Your task to perform on an android device: Is it going to rain tomorrow? Image 0: 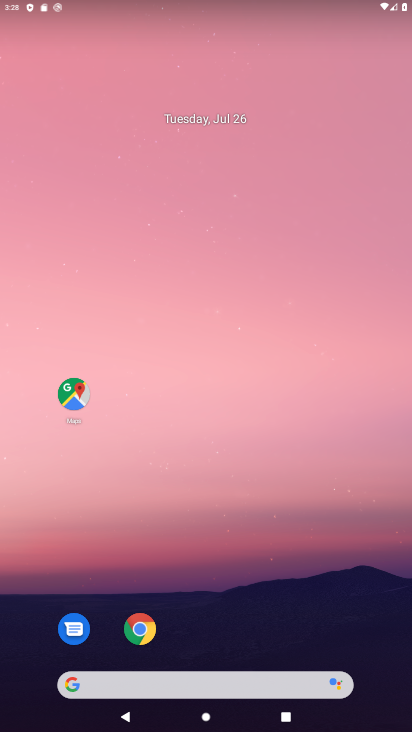
Step 0: drag from (274, 613) to (231, 502)
Your task to perform on an android device: Is it going to rain tomorrow? Image 1: 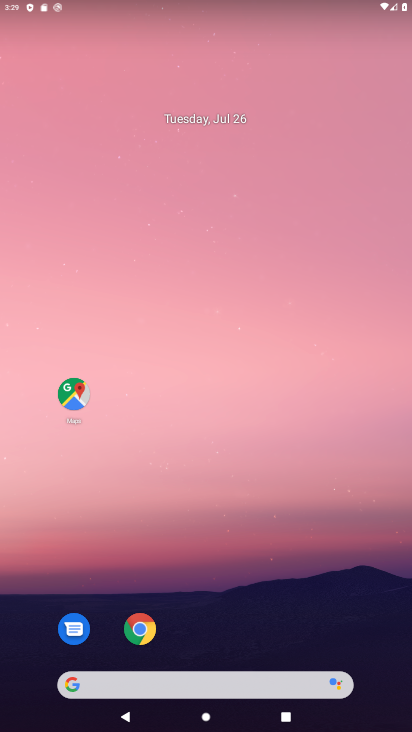
Step 1: drag from (295, 608) to (230, 212)
Your task to perform on an android device: Is it going to rain tomorrow? Image 2: 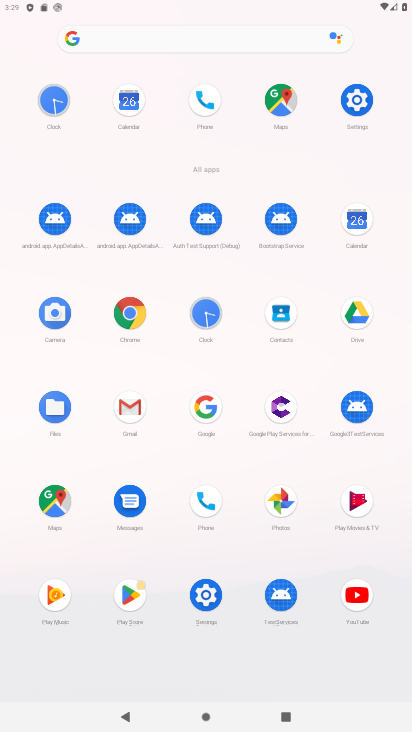
Step 2: click (205, 410)
Your task to perform on an android device: Is it going to rain tomorrow? Image 3: 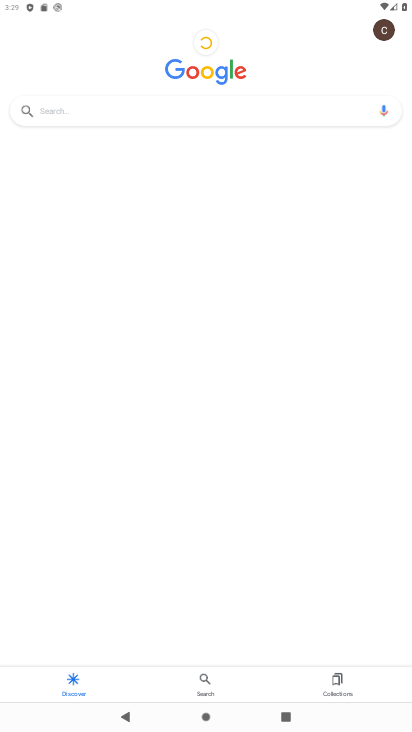
Step 3: click (146, 112)
Your task to perform on an android device: Is it going to rain tomorrow? Image 4: 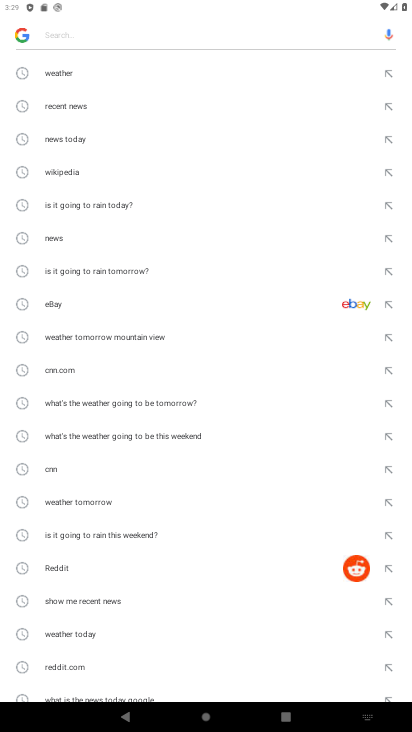
Step 4: click (63, 73)
Your task to perform on an android device: Is it going to rain tomorrow? Image 5: 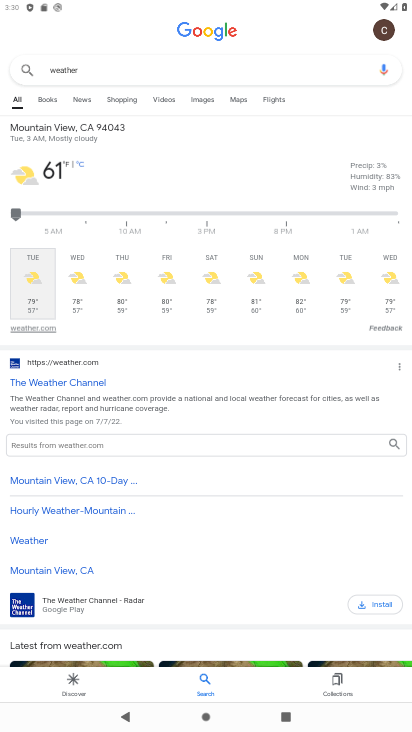
Step 5: click (78, 275)
Your task to perform on an android device: Is it going to rain tomorrow? Image 6: 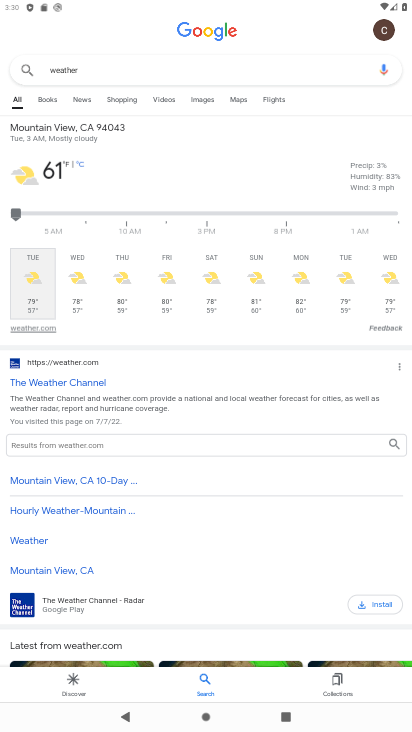
Step 6: click (78, 281)
Your task to perform on an android device: Is it going to rain tomorrow? Image 7: 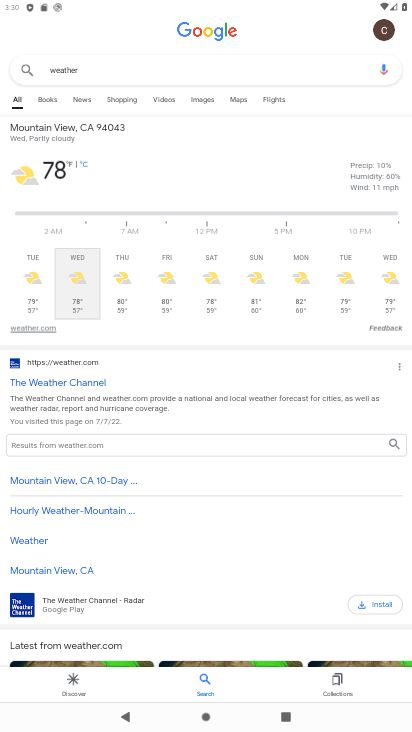
Step 7: click (75, 286)
Your task to perform on an android device: Is it going to rain tomorrow? Image 8: 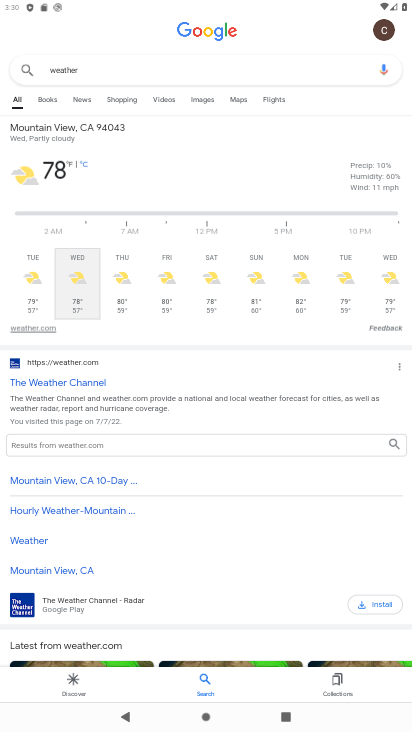
Step 8: task complete